Your task to perform on an android device: How much does a 3 bedroom apartment rent for in Washington DC? Image 0: 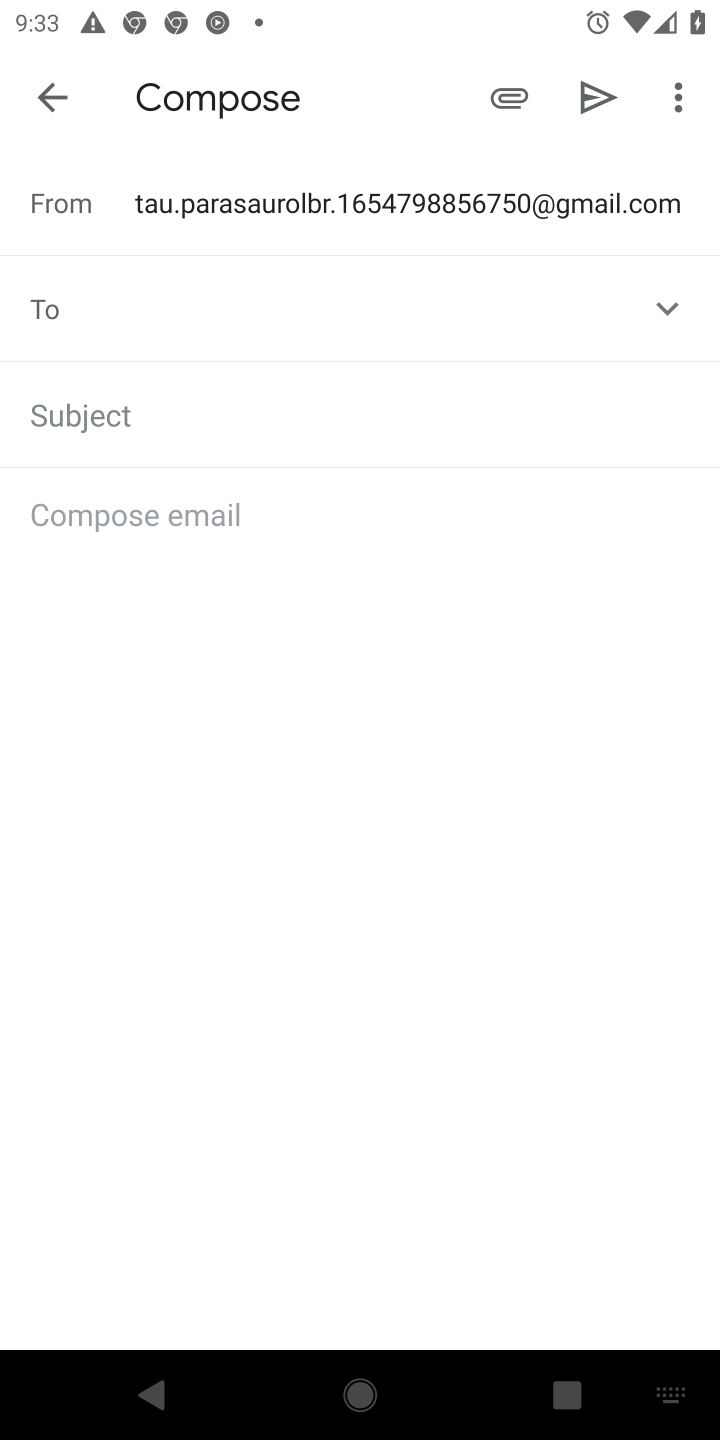
Step 0: press home button
Your task to perform on an android device: How much does a 3 bedroom apartment rent for in Washington DC? Image 1: 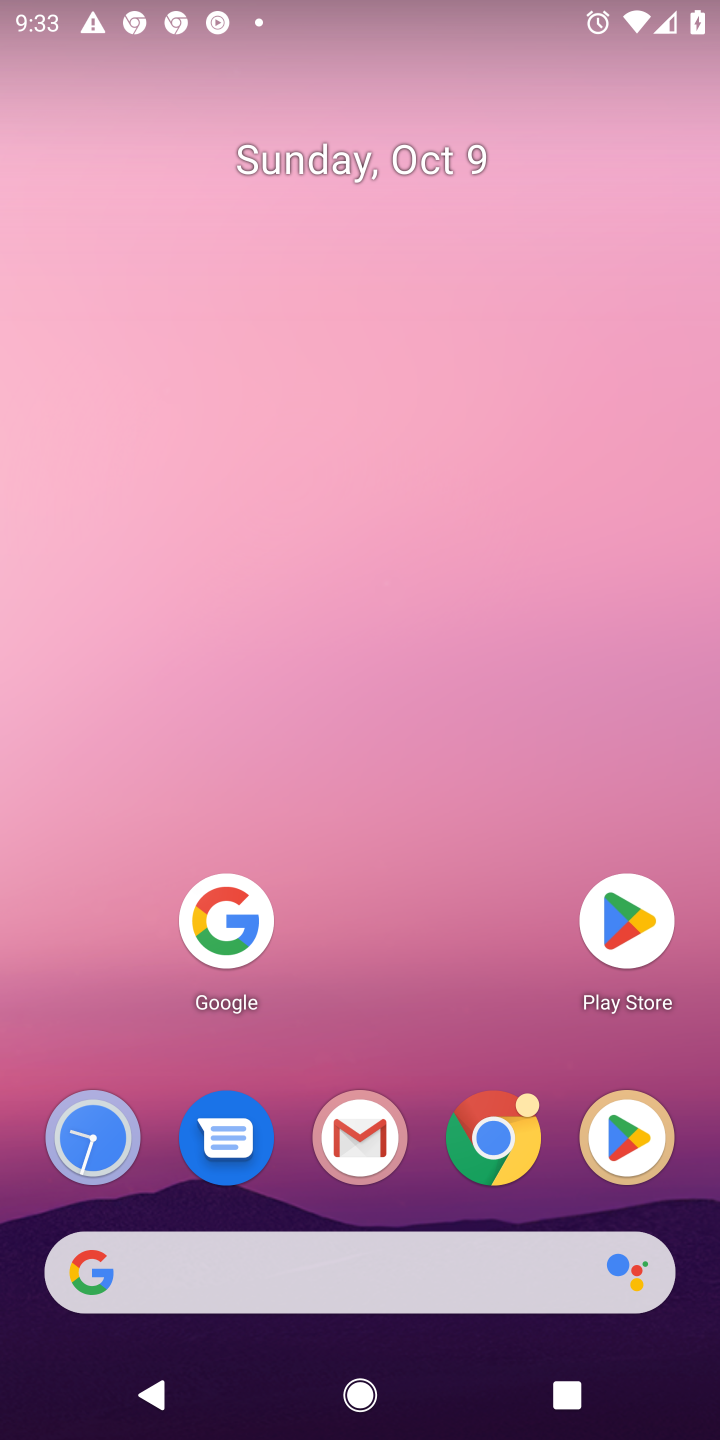
Step 1: click (233, 882)
Your task to perform on an android device: How much does a 3 bedroom apartment rent for in Washington DC? Image 2: 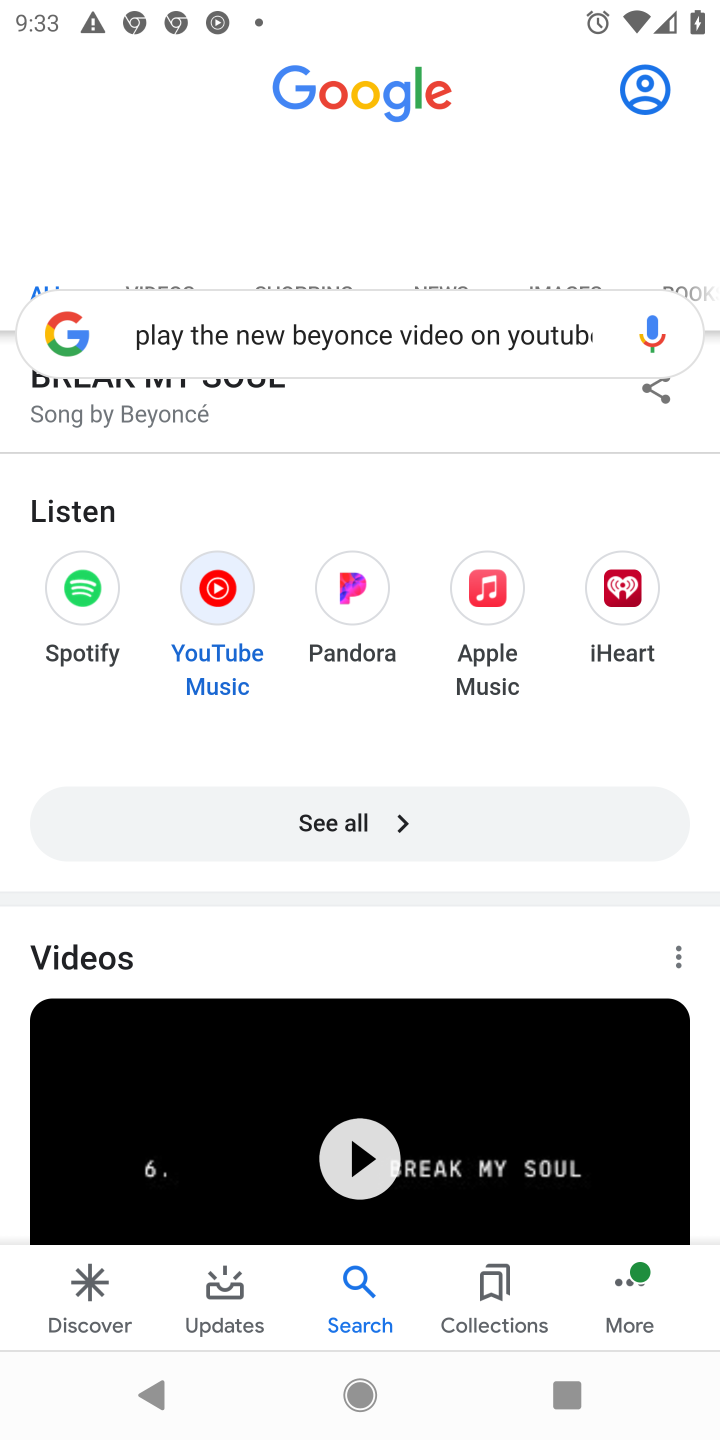
Step 2: click (392, 316)
Your task to perform on an android device: How much does a 3 bedroom apartment rent for in Washington DC? Image 3: 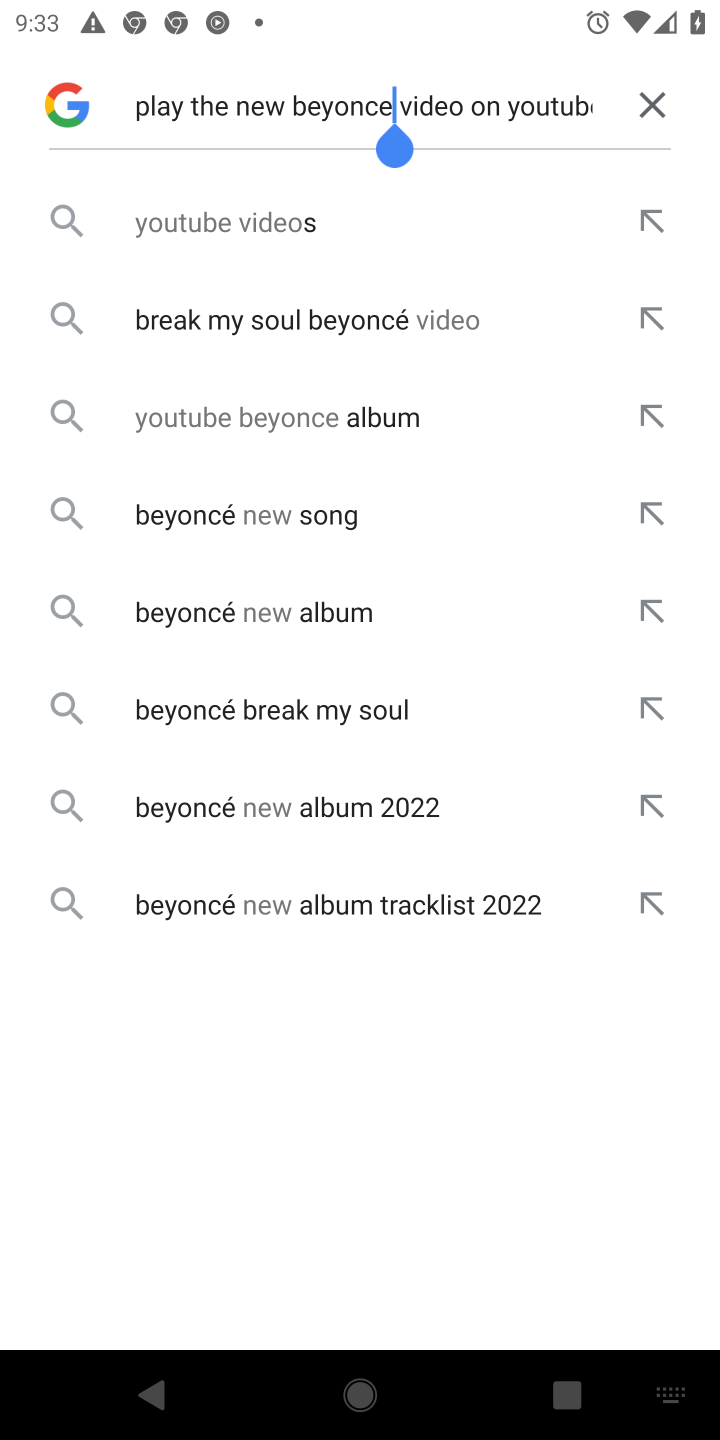
Step 3: click (650, 89)
Your task to perform on an android device: How much does a 3 bedroom apartment rent for in Washington DC? Image 4: 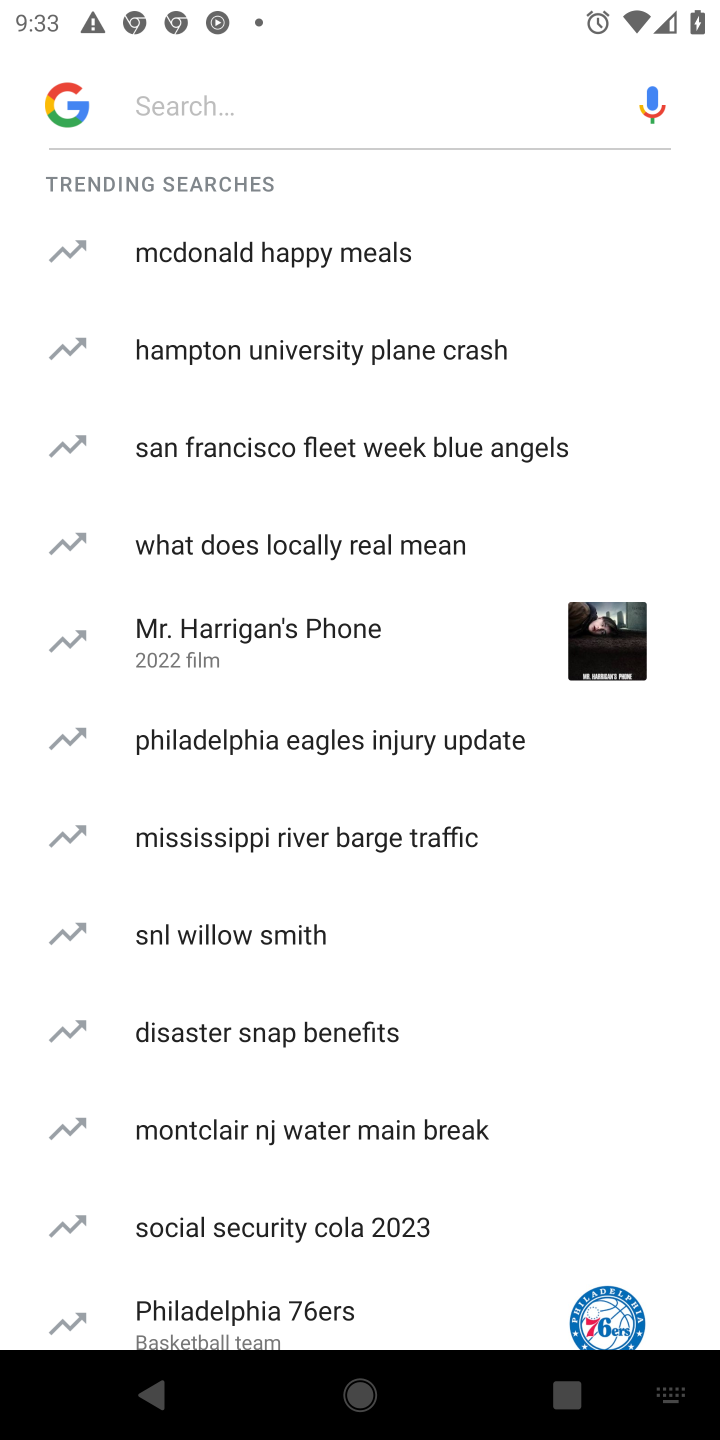
Step 4: click (414, 95)
Your task to perform on an android device: How much does a 3 bedroom apartment rent for in Washington DC? Image 5: 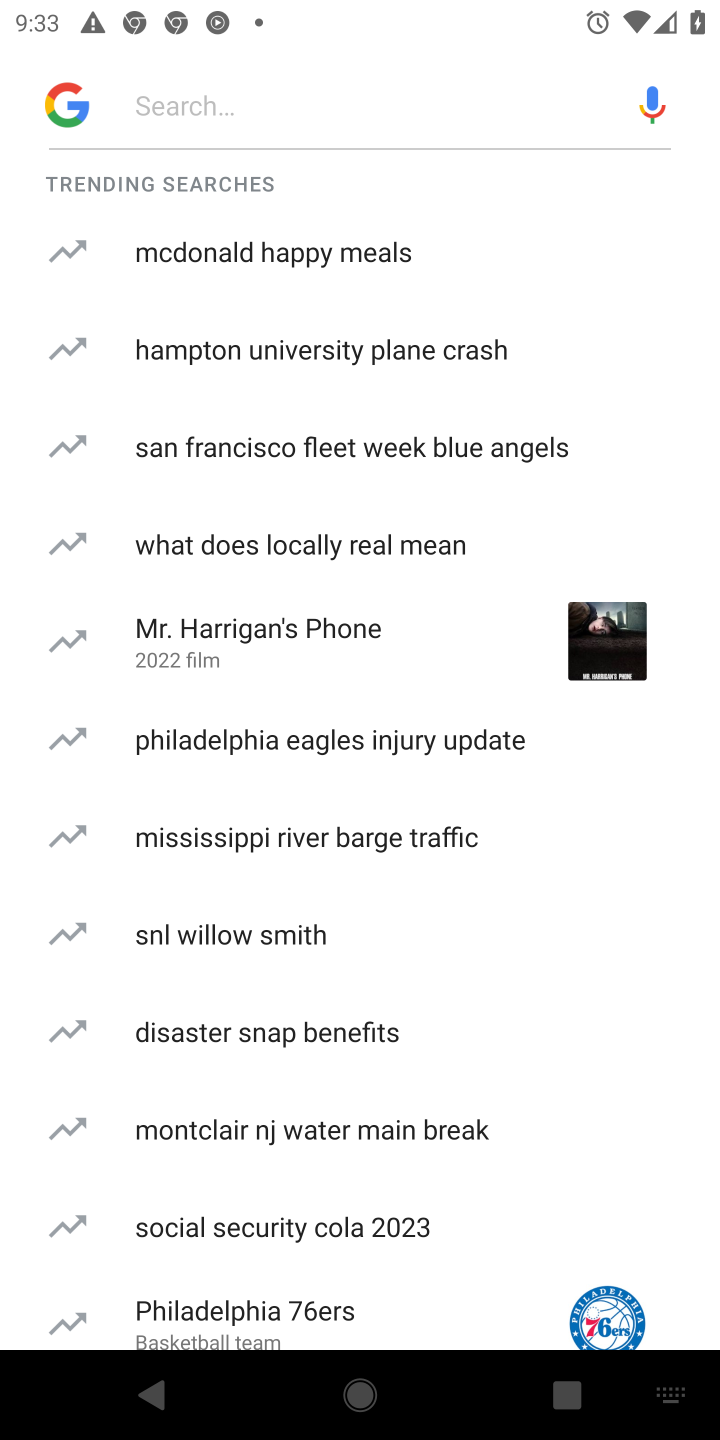
Step 5: type "How much does a 3 bedroom apartment rent for in Washington DC? "
Your task to perform on an android device: How much does a 3 bedroom apartment rent for in Washington DC? Image 6: 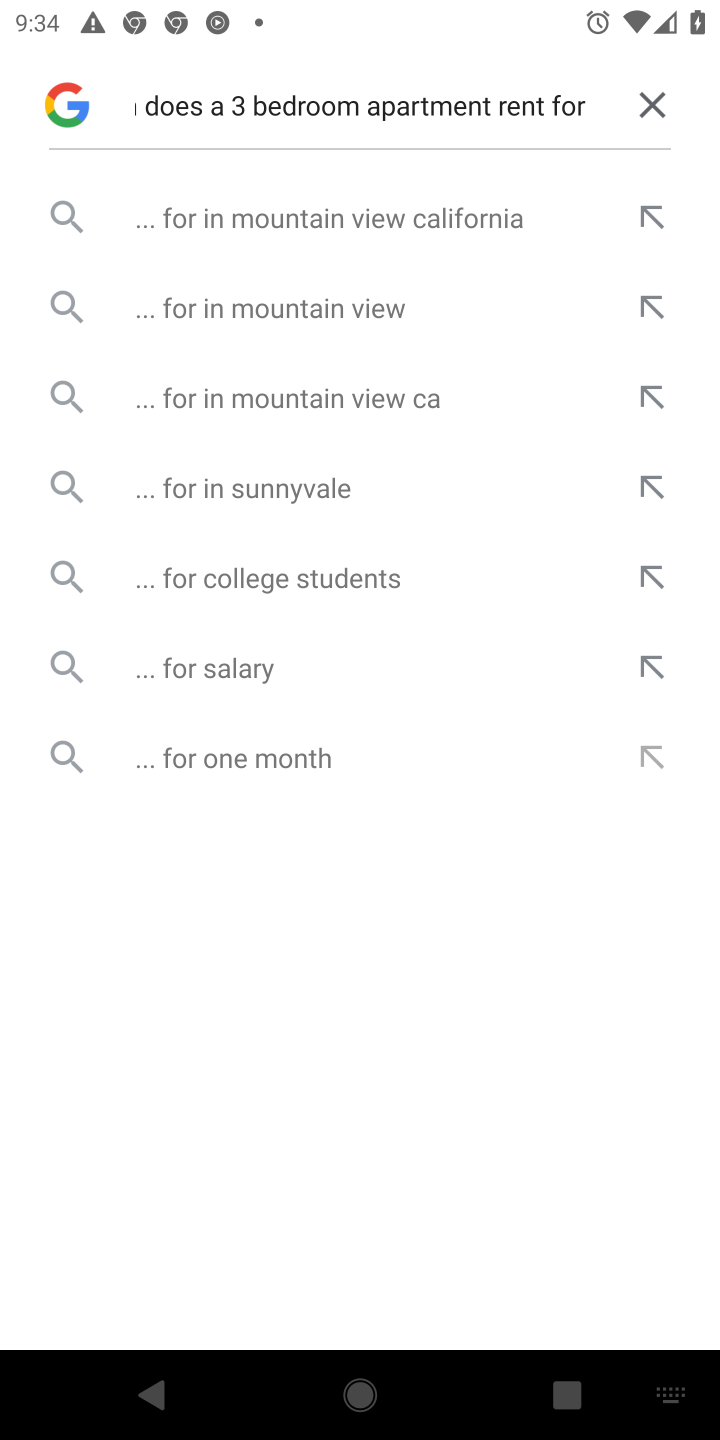
Step 6: click (306, 319)
Your task to perform on an android device: How much does a 3 bedroom apartment rent for in Washington DC? Image 7: 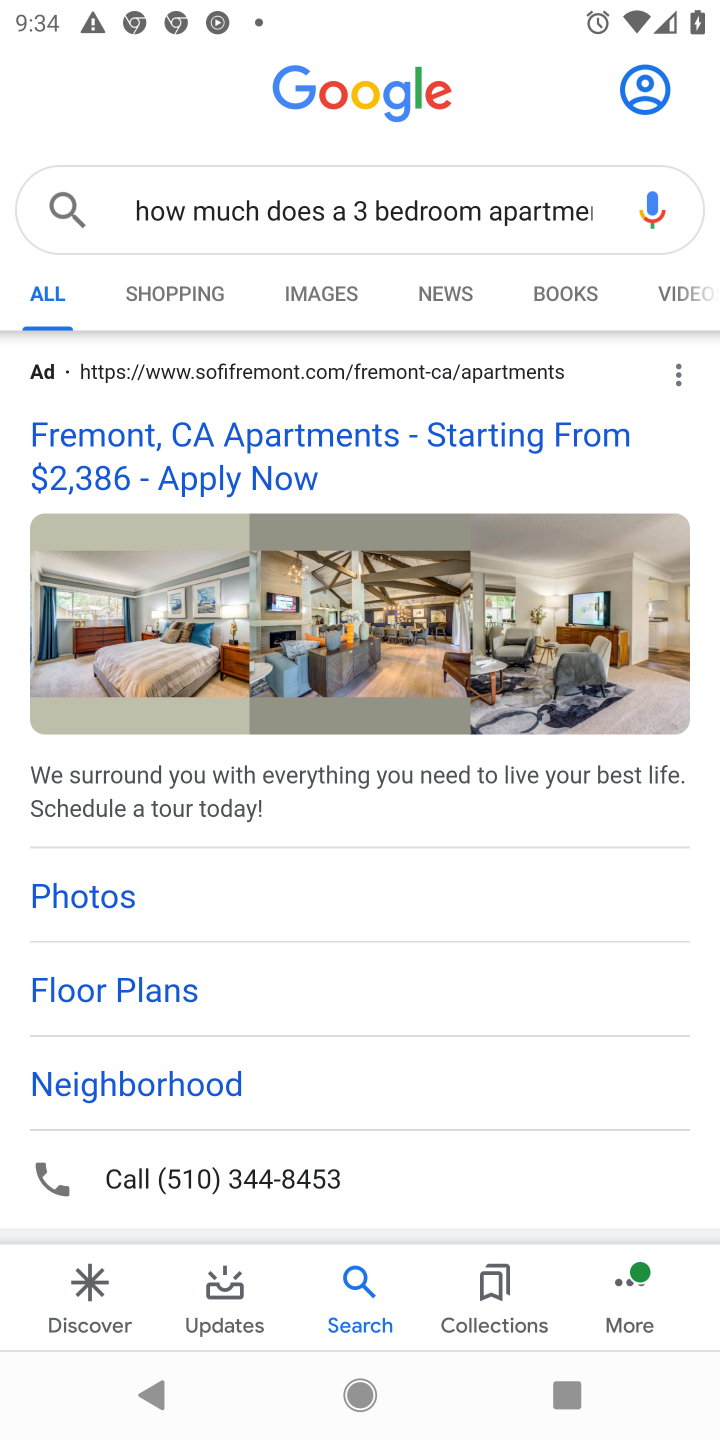
Step 7: drag from (364, 1050) to (356, 295)
Your task to perform on an android device: How much does a 3 bedroom apartment rent for in Washington DC? Image 8: 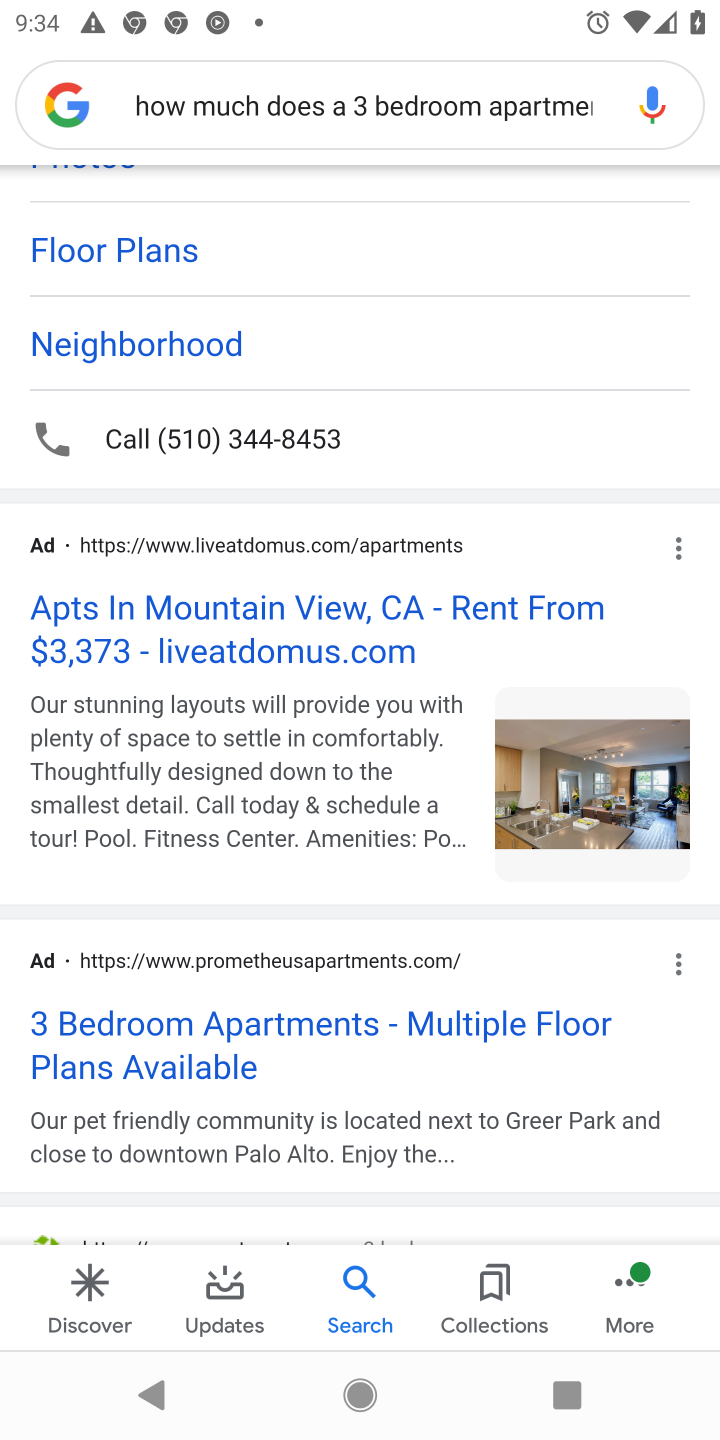
Step 8: drag from (266, 1112) to (300, 302)
Your task to perform on an android device: How much does a 3 bedroom apartment rent for in Washington DC? Image 9: 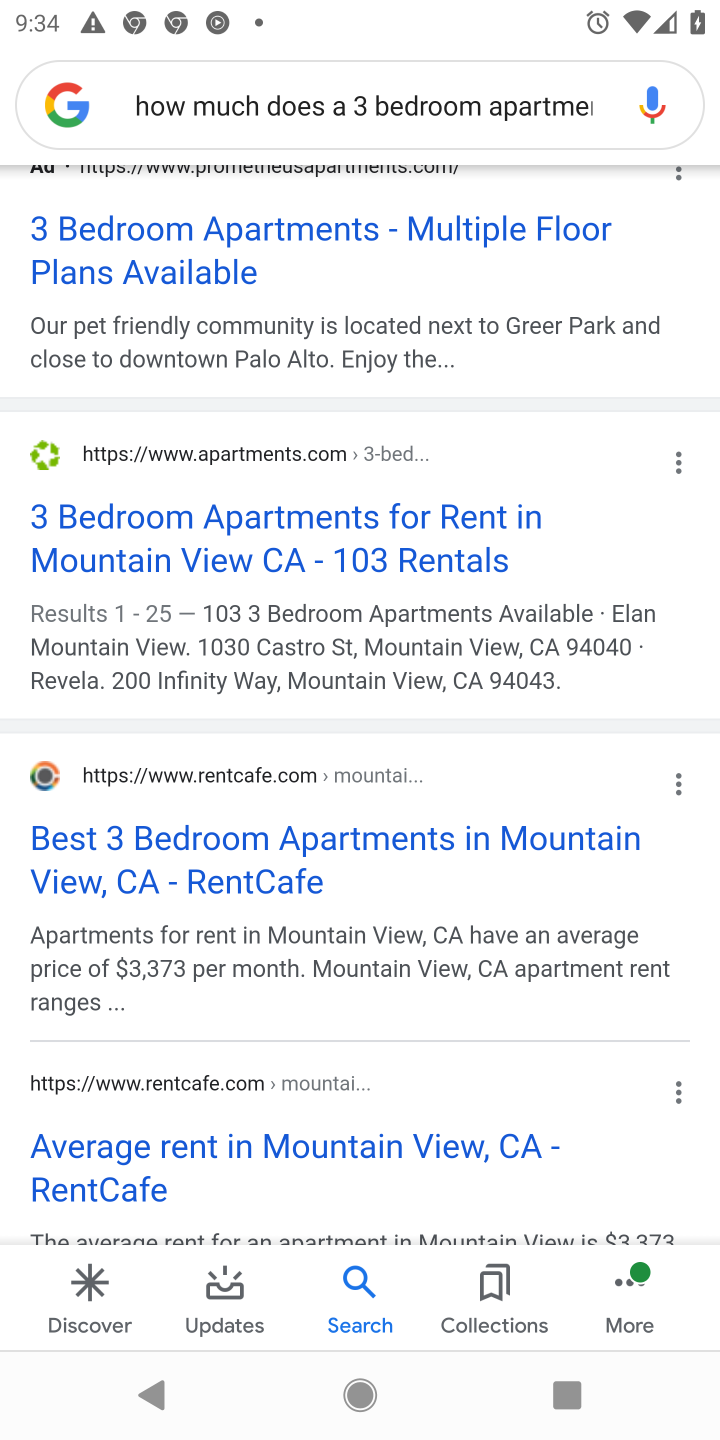
Step 9: click (215, 504)
Your task to perform on an android device: How much does a 3 bedroom apartment rent for in Washington DC? Image 10: 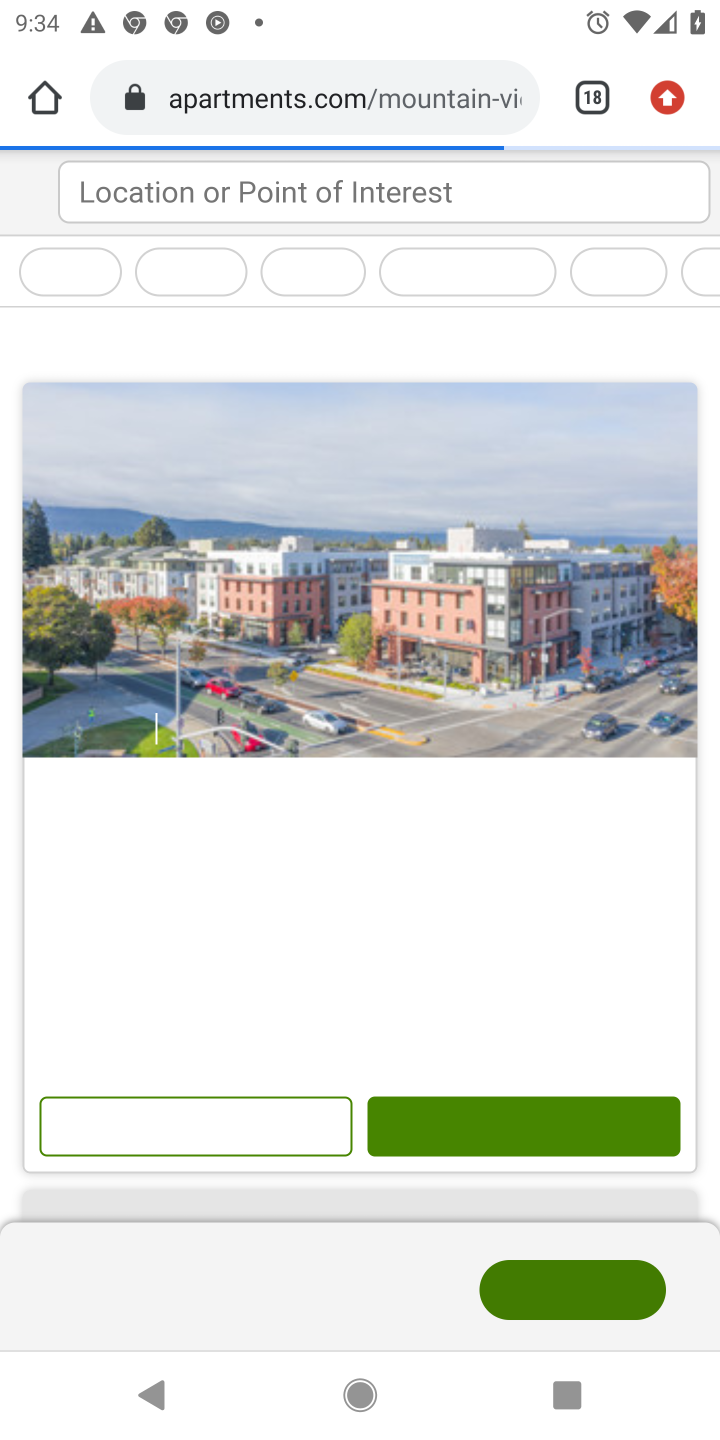
Step 10: task complete